Your task to perform on an android device: Show me productivity apps on the Play Store Image 0: 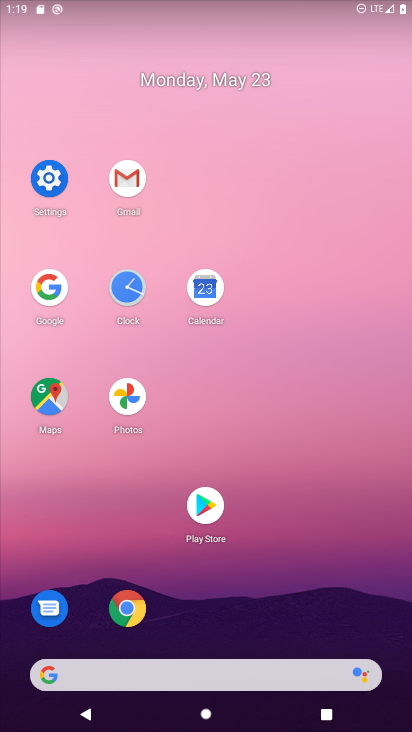
Step 0: drag from (235, 583) to (218, 221)
Your task to perform on an android device: Show me productivity apps on the Play Store Image 1: 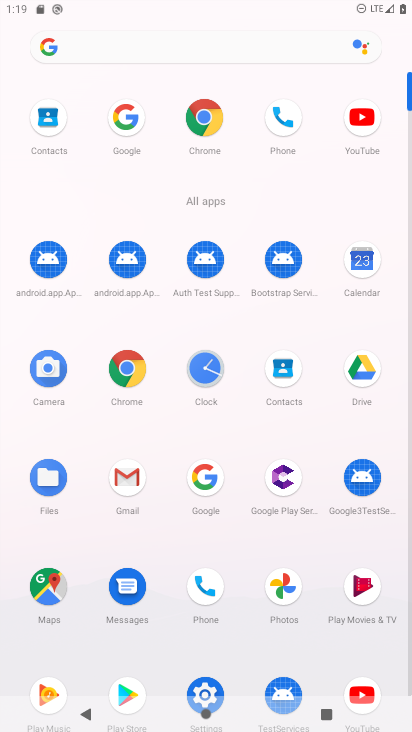
Step 1: drag from (175, 592) to (193, 286)
Your task to perform on an android device: Show me productivity apps on the Play Store Image 2: 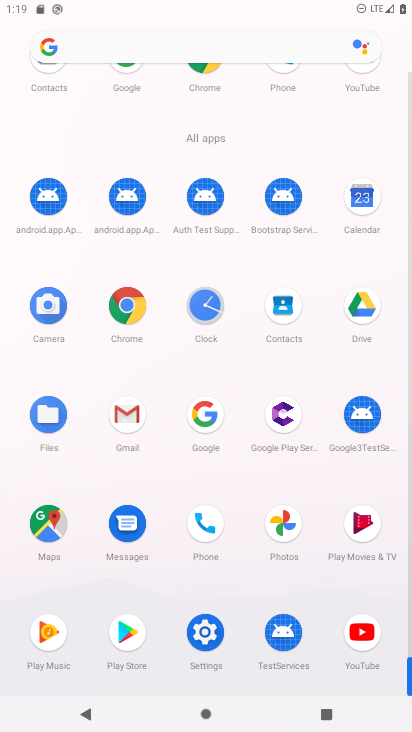
Step 2: click (132, 627)
Your task to perform on an android device: Show me productivity apps on the Play Store Image 3: 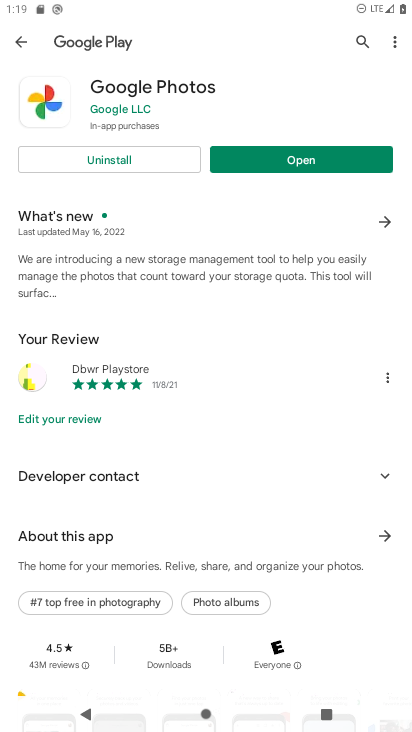
Step 3: click (29, 35)
Your task to perform on an android device: Show me productivity apps on the Play Store Image 4: 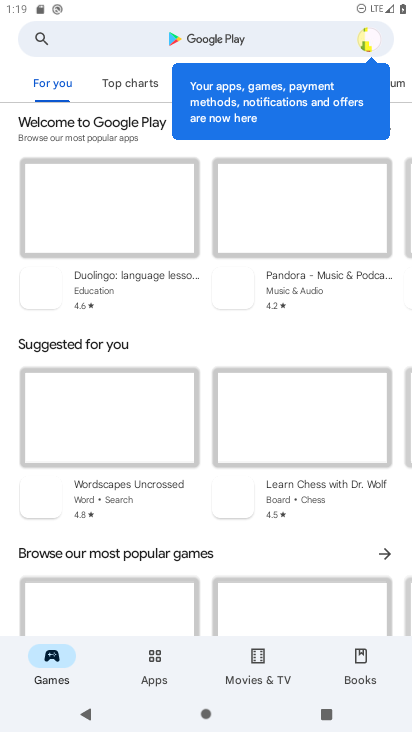
Step 4: click (147, 668)
Your task to perform on an android device: Show me productivity apps on the Play Store Image 5: 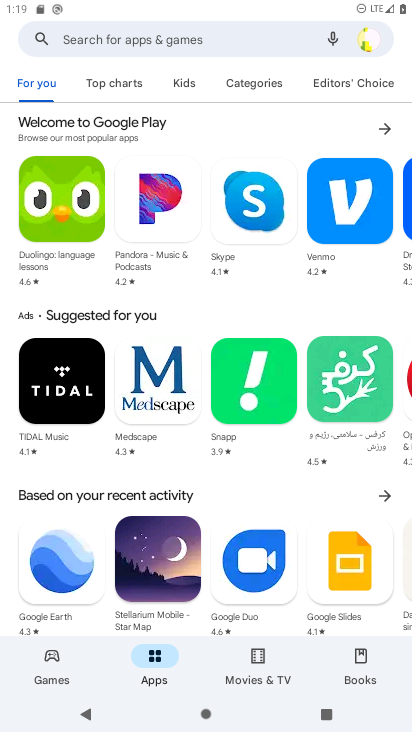
Step 5: click (262, 78)
Your task to perform on an android device: Show me productivity apps on the Play Store Image 6: 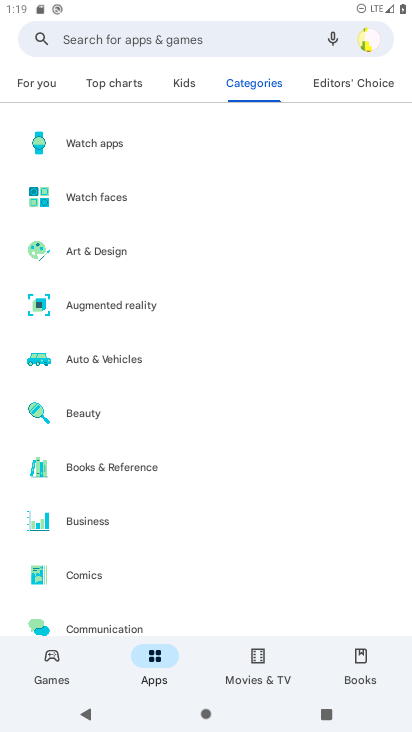
Step 6: drag from (269, 530) to (293, 121)
Your task to perform on an android device: Show me productivity apps on the Play Store Image 7: 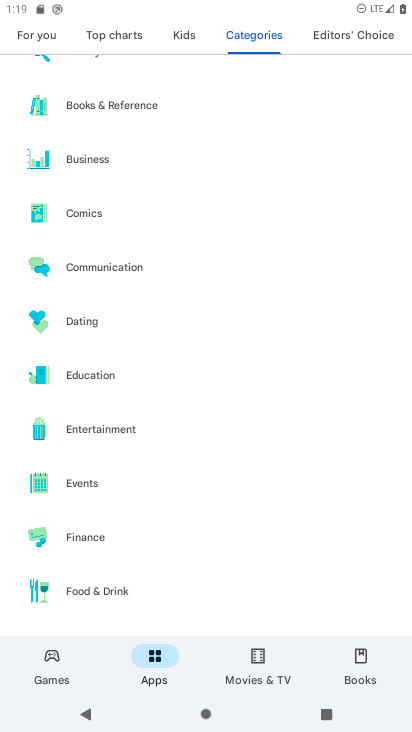
Step 7: drag from (266, 540) to (264, 101)
Your task to perform on an android device: Show me productivity apps on the Play Store Image 8: 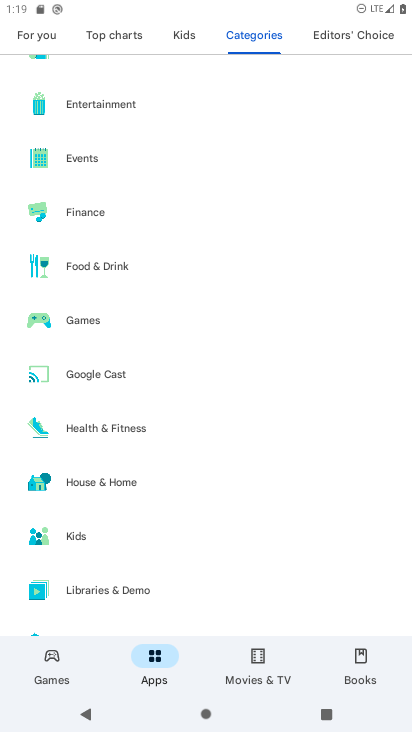
Step 8: drag from (276, 566) to (295, 90)
Your task to perform on an android device: Show me productivity apps on the Play Store Image 9: 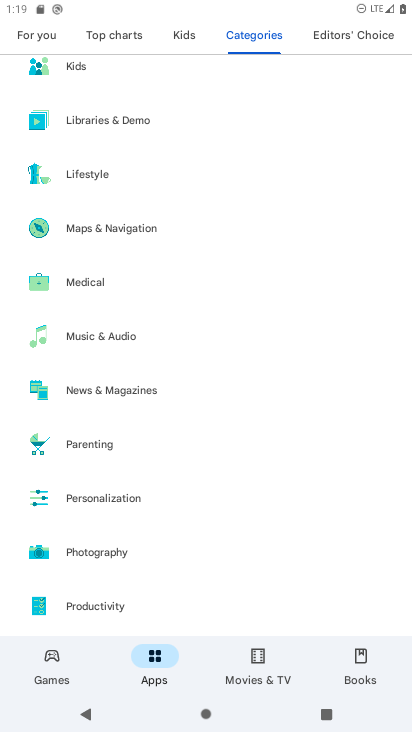
Step 9: click (114, 607)
Your task to perform on an android device: Show me productivity apps on the Play Store Image 10: 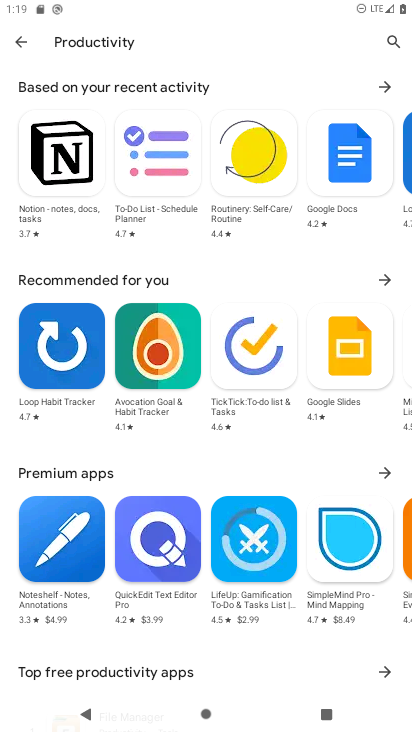
Step 10: task complete